Your task to perform on an android device: Set the phone to "Do not disturb". Image 0: 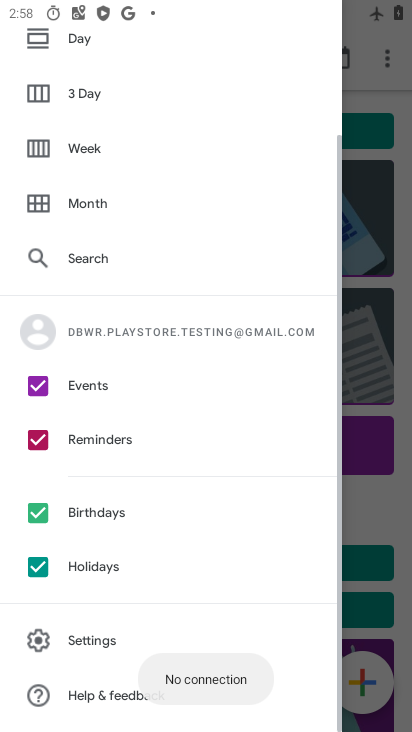
Step 0: drag from (204, 492) to (211, 154)
Your task to perform on an android device: Set the phone to "Do not disturb". Image 1: 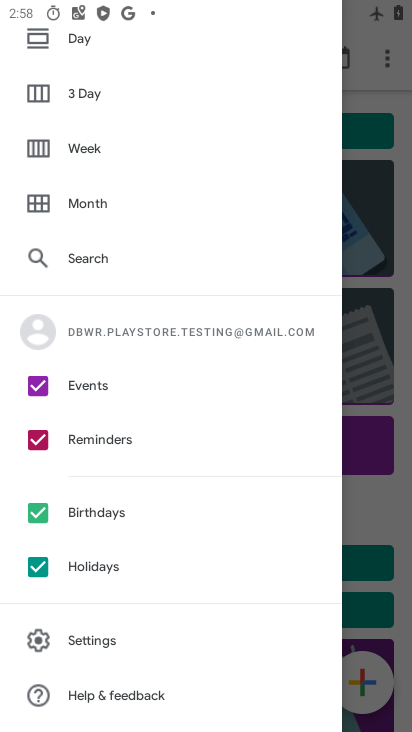
Step 1: press home button
Your task to perform on an android device: Set the phone to "Do not disturb". Image 2: 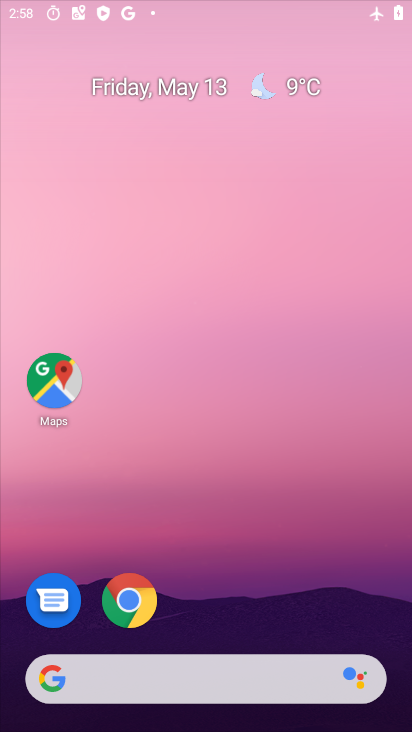
Step 2: drag from (221, 629) to (198, 119)
Your task to perform on an android device: Set the phone to "Do not disturb". Image 3: 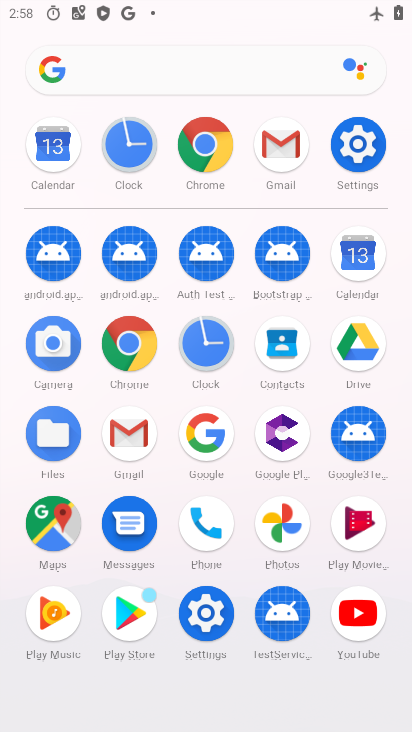
Step 3: click (342, 127)
Your task to perform on an android device: Set the phone to "Do not disturb". Image 4: 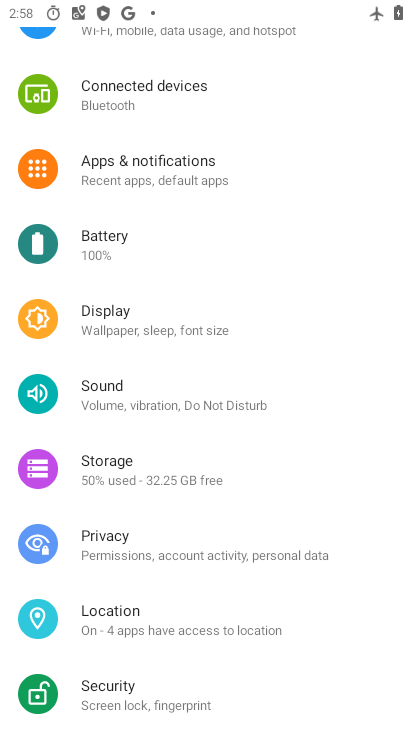
Step 4: click (160, 165)
Your task to perform on an android device: Set the phone to "Do not disturb". Image 5: 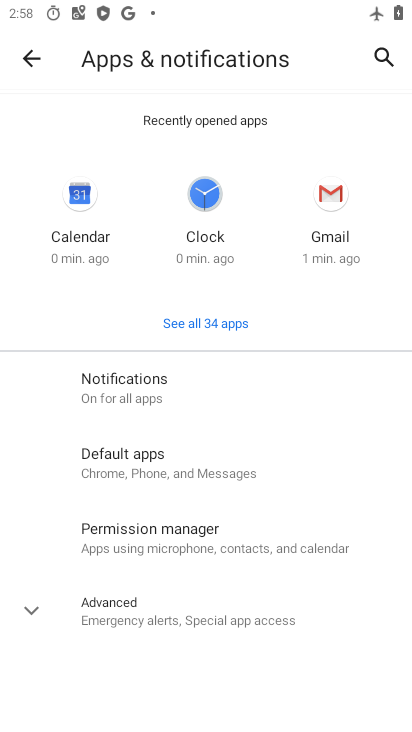
Step 5: click (191, 399)
Your task to perform on an android device: Set the phone to "Do not disturb". Image 6: 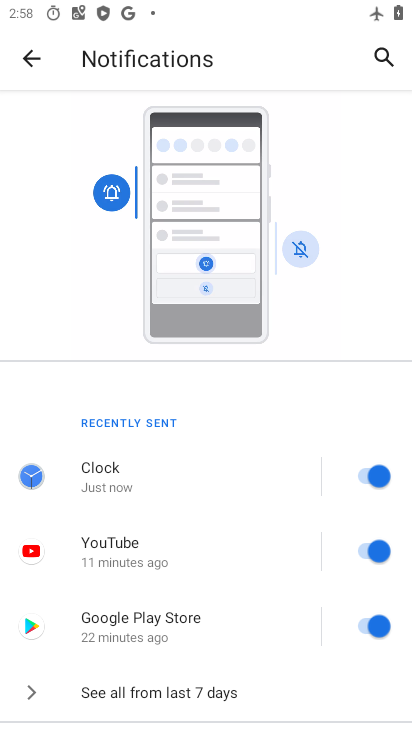
Step 6: drag from (220, 599) to (267, 105)
Your task to perform on an android device: Set the phone to "Do not disturb". Image 7: 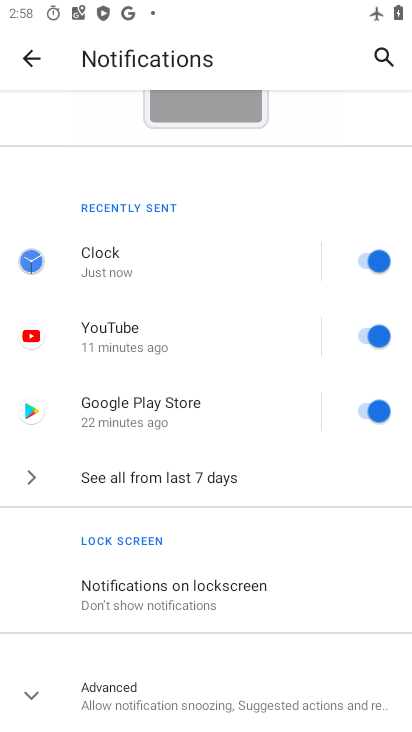
Step 7: click (161, 700)
Your task to perform on an android device: Set the phone to "Do not disturb". Image 8: 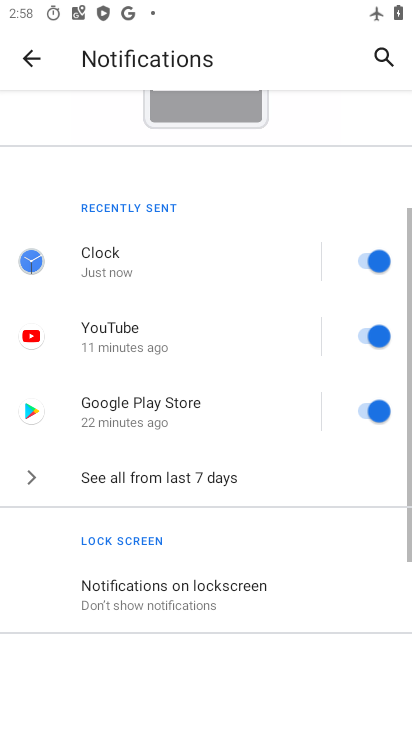
Step 8: drag from (172, 685) to (299, 59)
Your task to perform on an android device: Set the phone to "Do not disturb". Image 9: 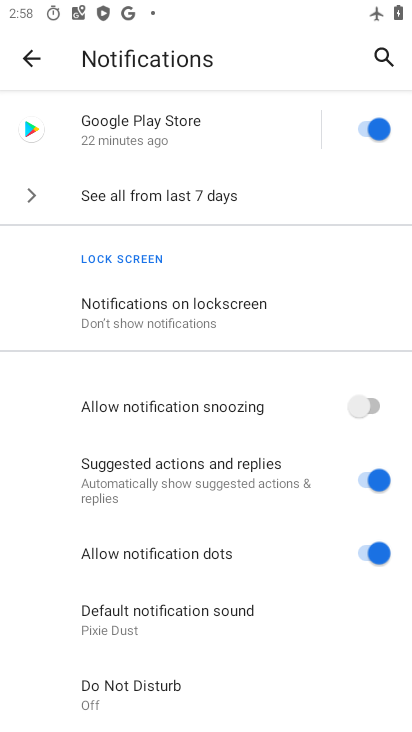
Step 9: click (186, 704)
Your task to perform on an android device: Set the phone to "Do not disturb". Image 10: 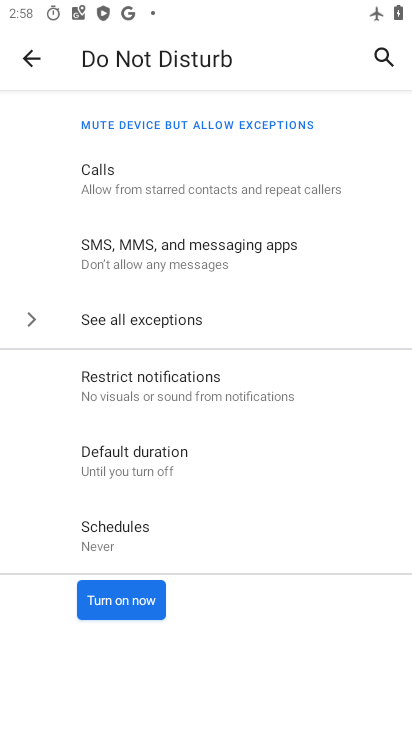
Step 10: drag from (182, 678) to (202, 357)
Your task to perform on an android device: Set the phone to "Do not disturb". Image 11: 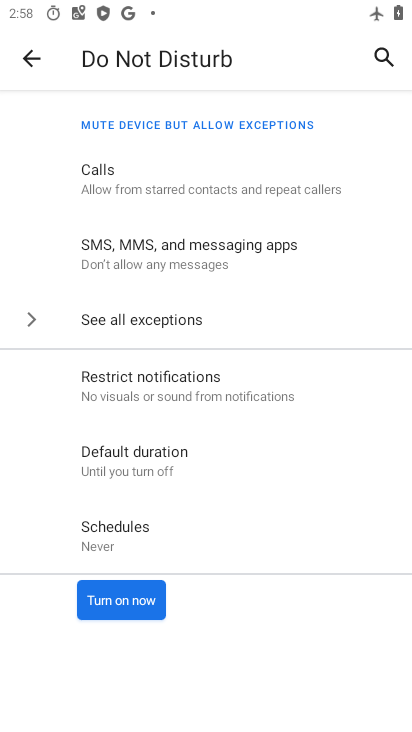
Step 11: click (133, 606)
Your task to perform on an android device: Set the phone to "Do not disturb". Image 12: 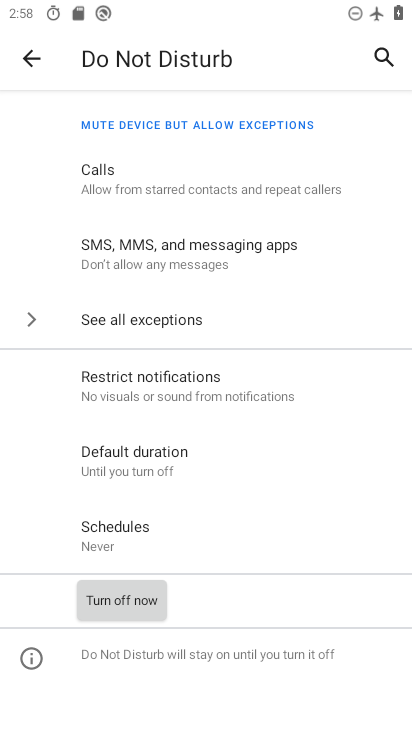
Step 12: task complete